Your task to perform on an android device: Open settings on Google Maps Image 0: 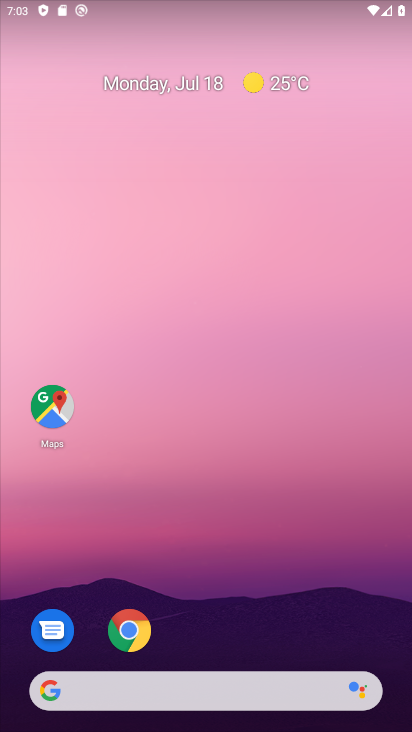
Step 0: click (64, 408)
Your task to perform on an android device: Open settings on Google Maps Image 1: 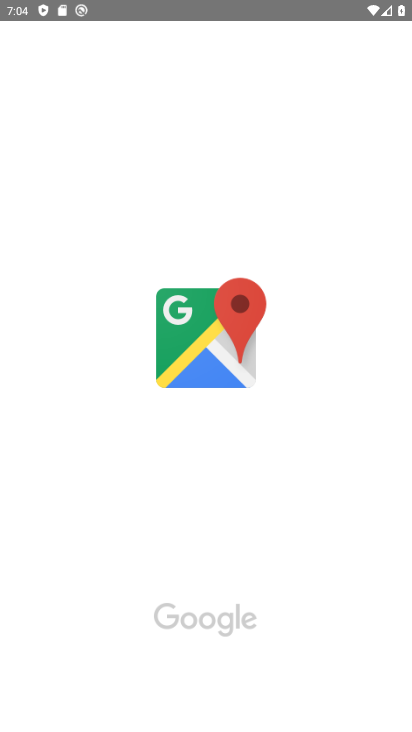
Step 1: click (295, 461)
Your task to perform on an android device: Open settings on Google Maps Image 2: 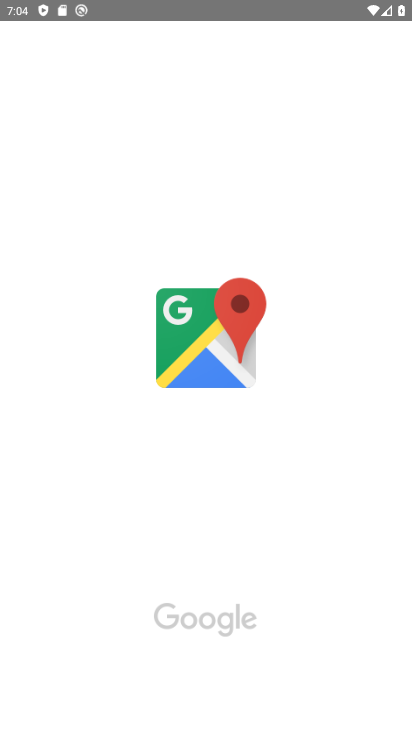
Step 2: task complete